Your task to perform on an android device: turn on location history Image 0: 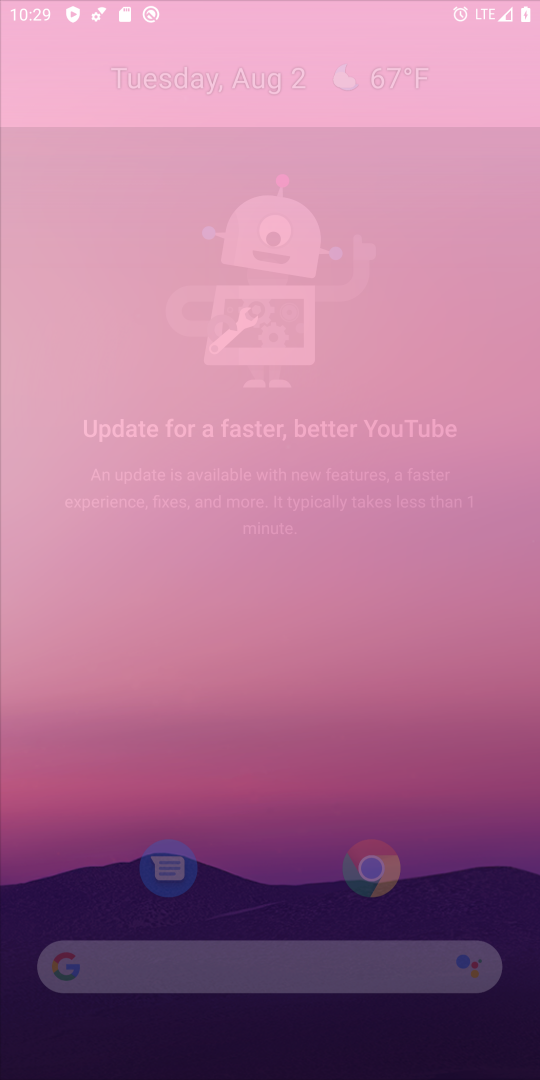
Step 0: press home button
Your task to perform on an android device: turn on location history Image 1: 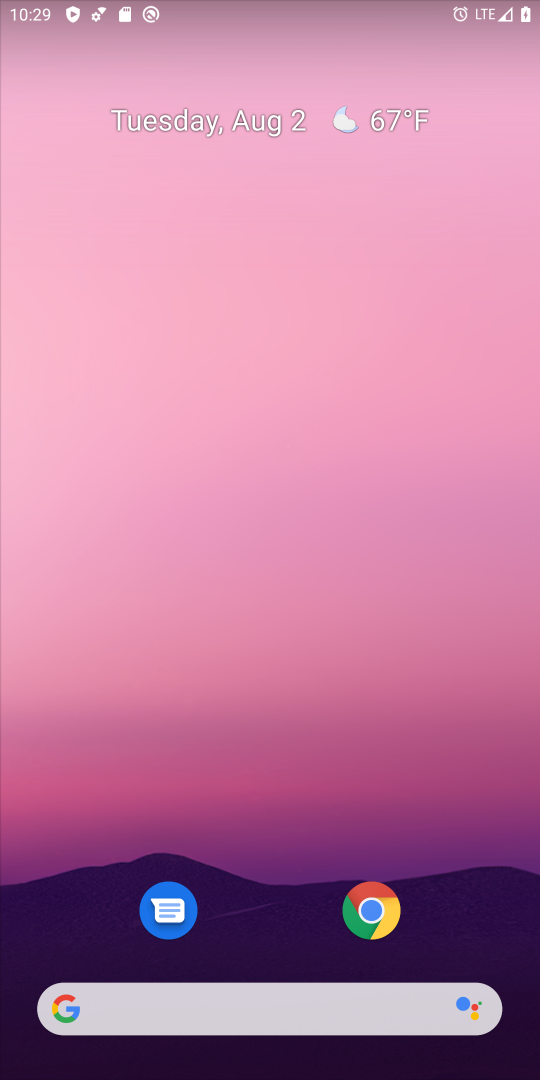
Step 1: drag from (308, 959) to (298, 238)
Your task to perform on an android device: turn on location history Image 2: 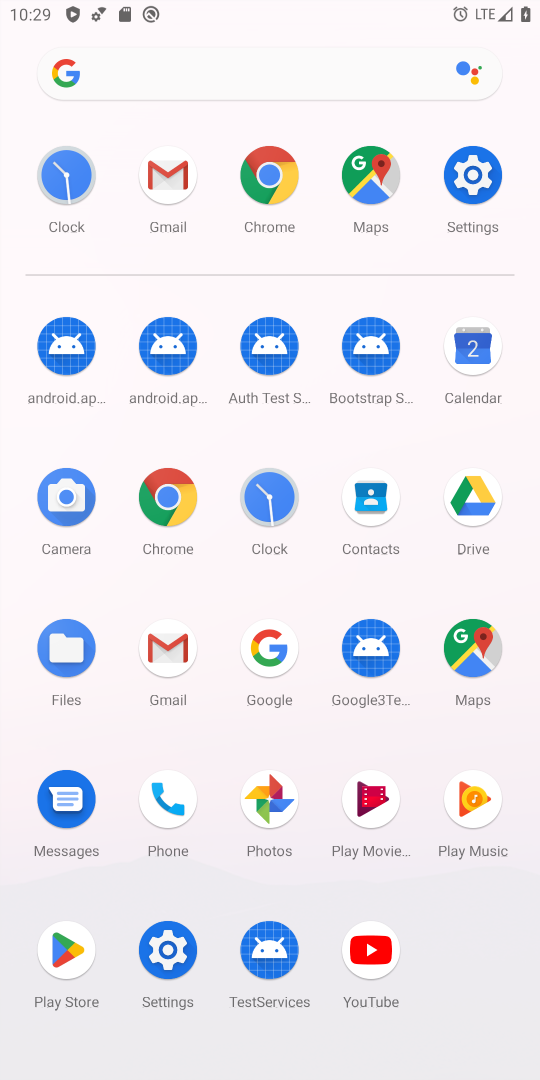
Step 2: click (376, 169)
Your task to perform on an android device: turn on location history Image 3: 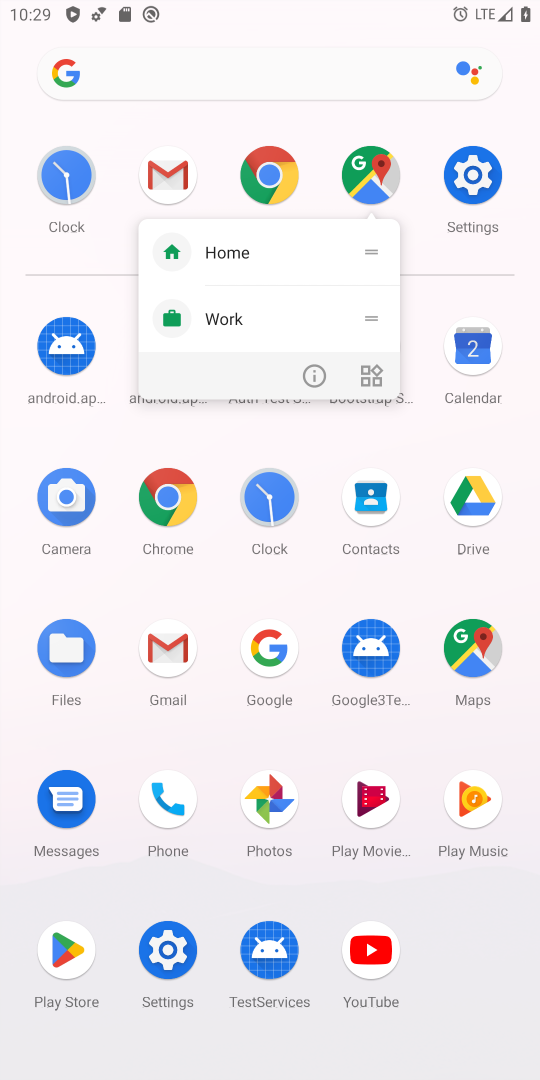
Step 3: click (481, 152)
Your task to perform on an android device: turn on location history Image 4: 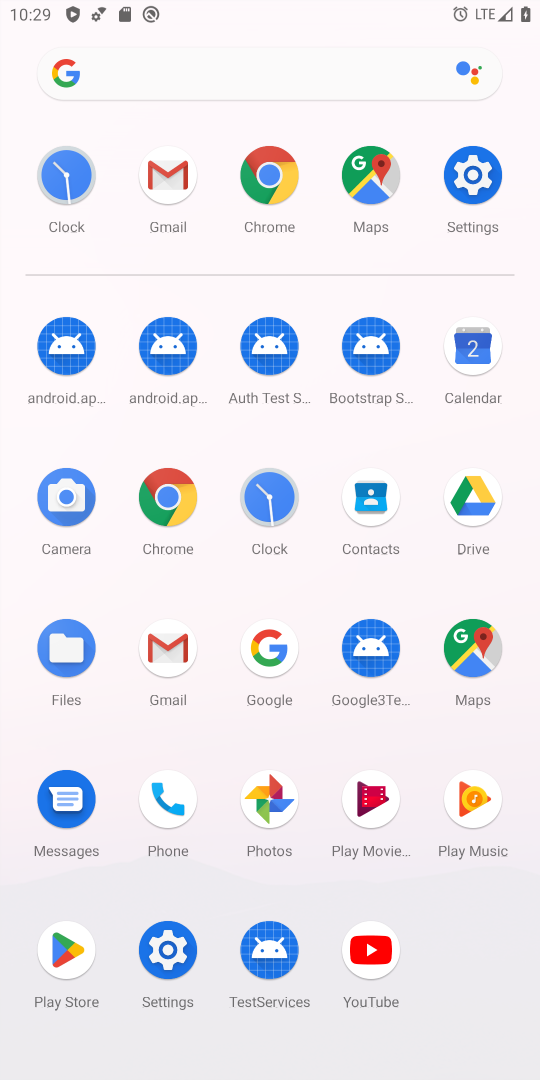
Step 4: click (478, 158)
Your task to perform on an android device: turn on location history Image 5: 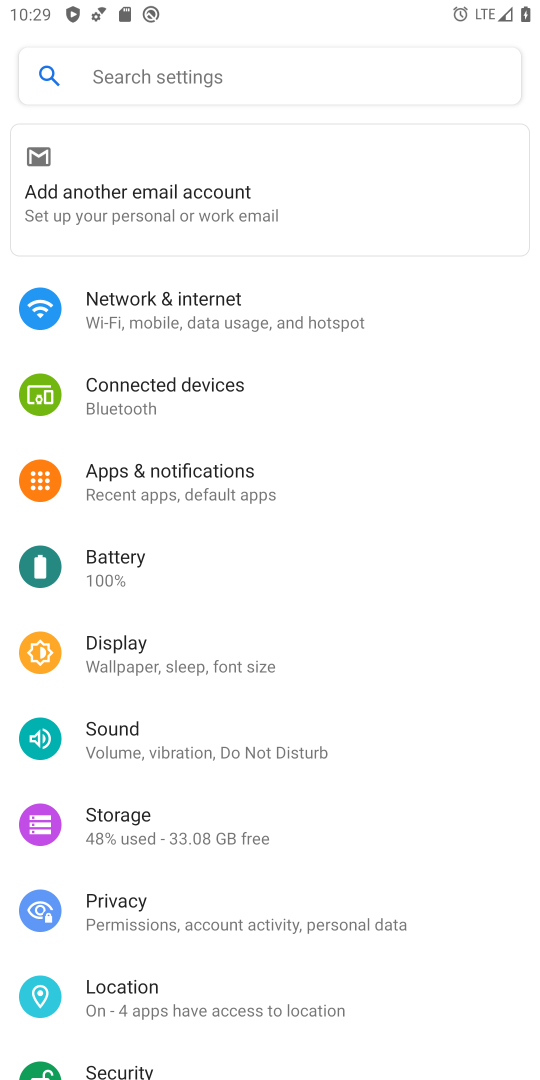
Step 5: click (141, 982)
Your task to perform on an android device: turn on location history Image 6: 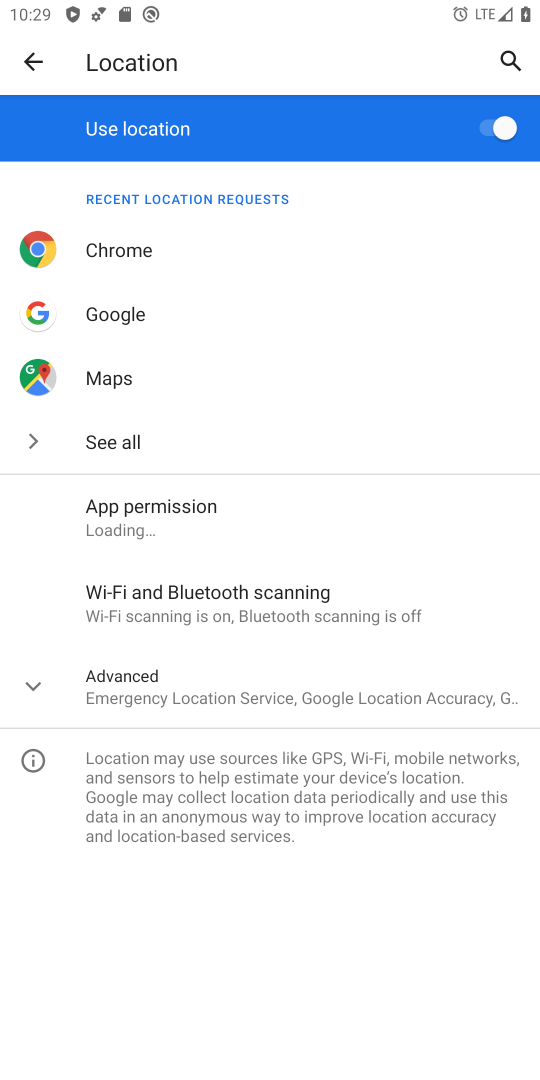
Step 6: click (205, 685)
Your task to perform on an android device: turn on location history Image 7: 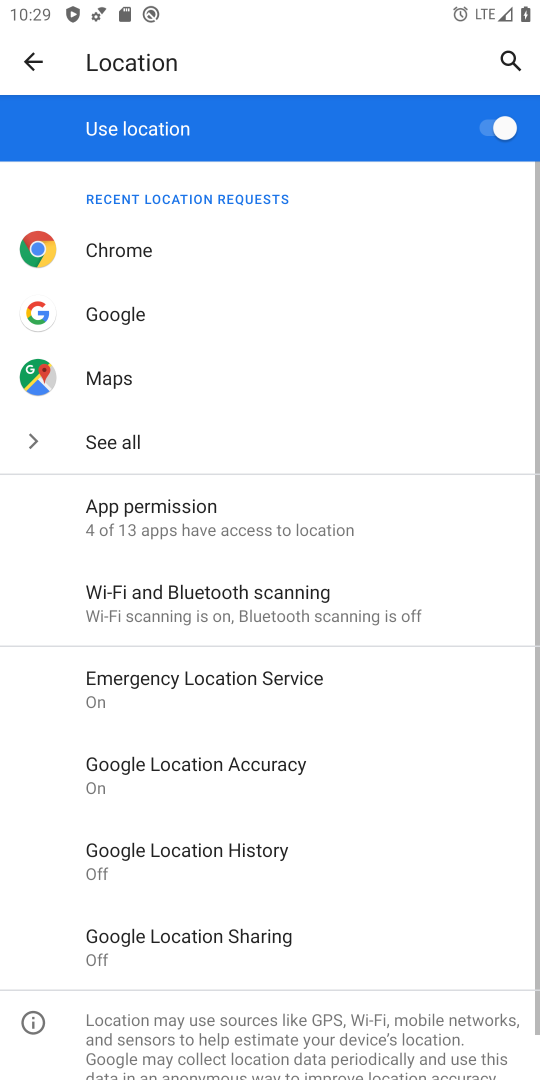
Step 7: click (234, 878)
Your task to perform on an android device: turn on location history Image 8: 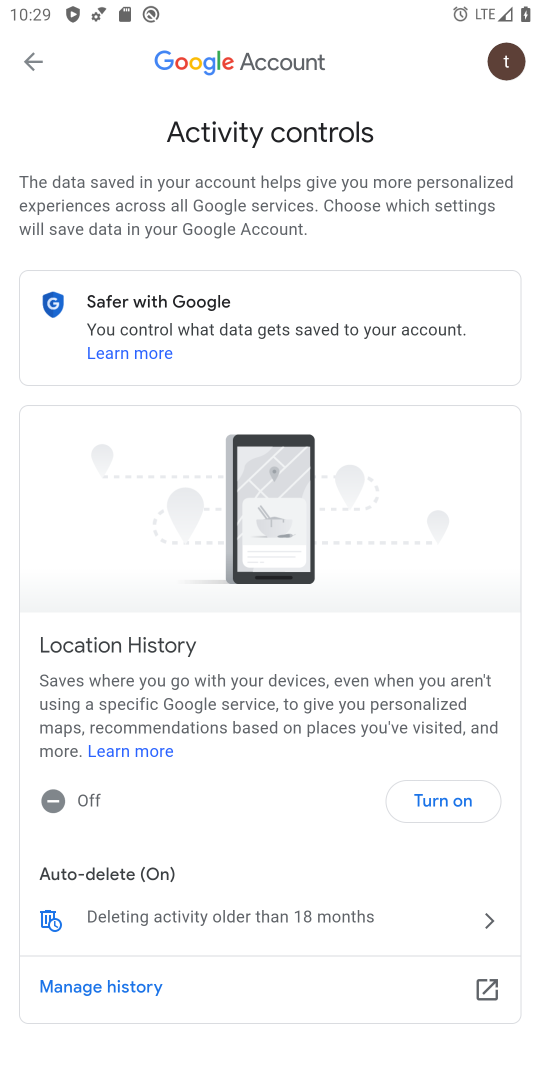
Step 8: click (449, 804)
Your task to perform on an android device: turn on location history Image 9: 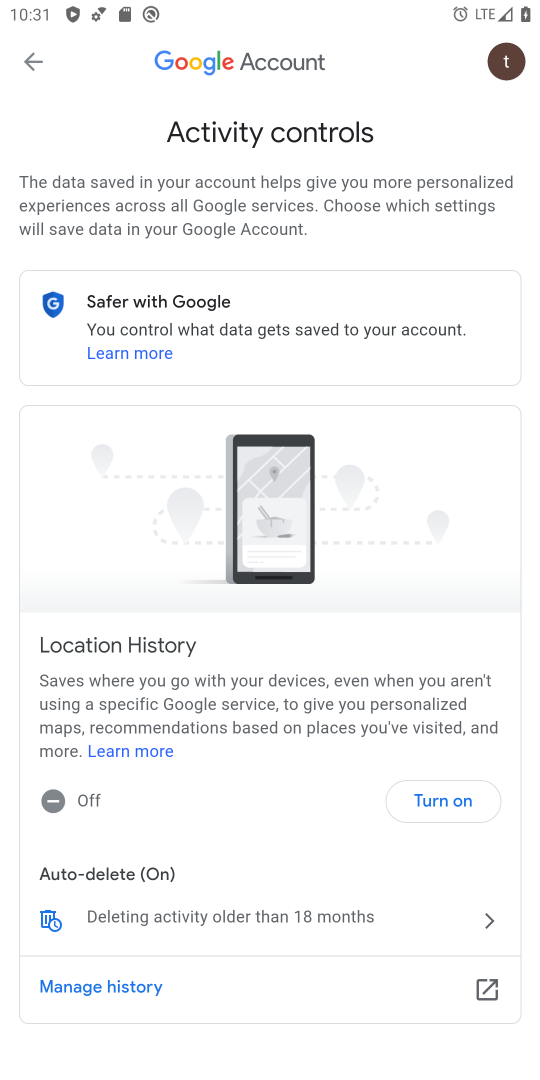
Step 9: task complete